Your task to perform on an android device: Clear the shopping cart on walmart.com. Image 0: 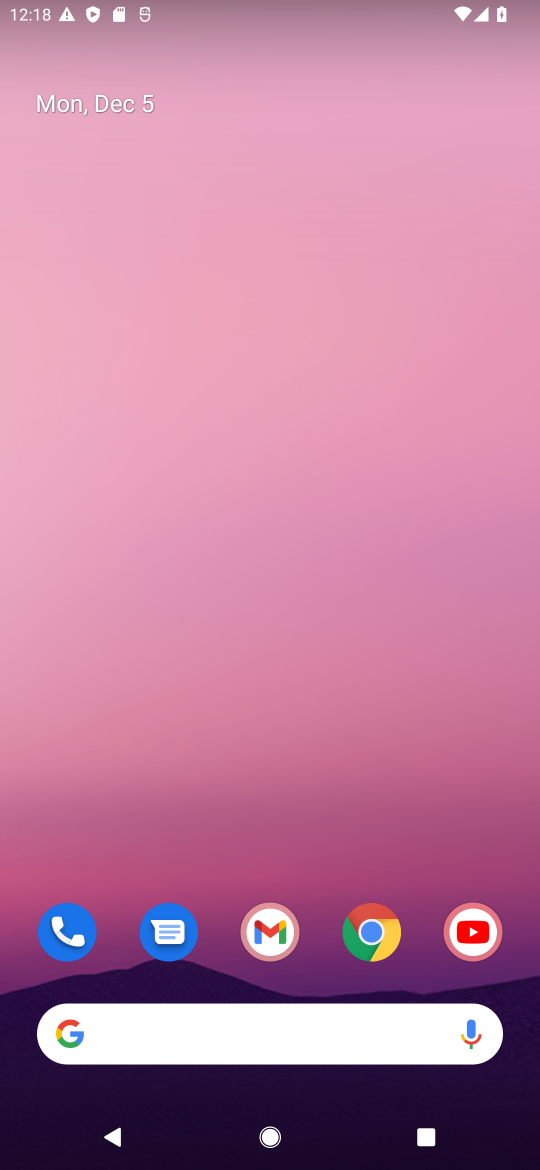
Step 0: click (360, 929)
Your task to perform on an android device: Clear the shopping cart on walmart.com. Image 1: 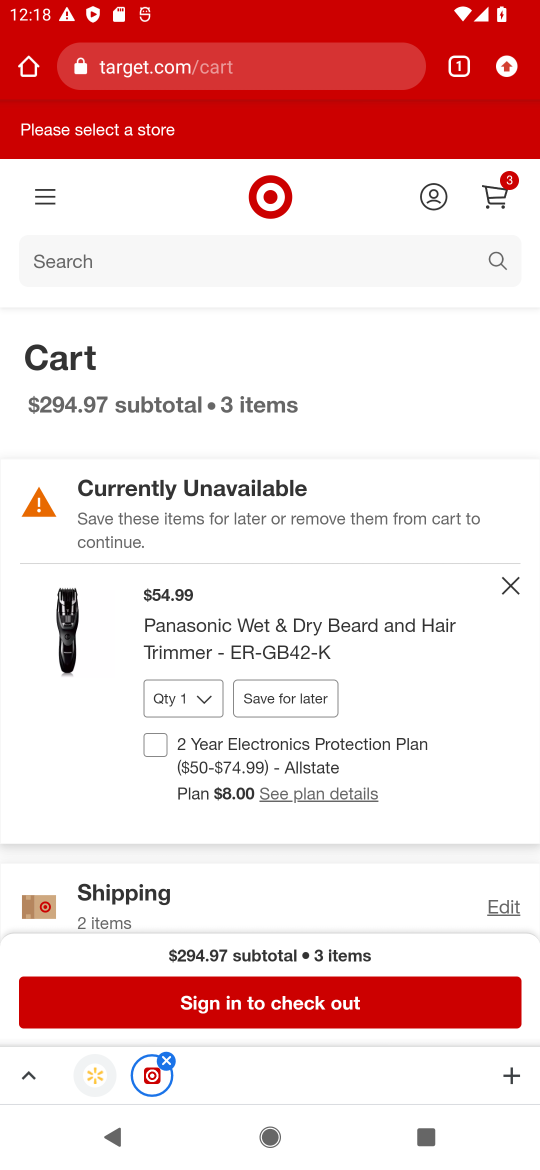
Step 1: click (216, 61)
Your task to perform on an android device: Clear the shopping cart on walmart.com. Image 2: 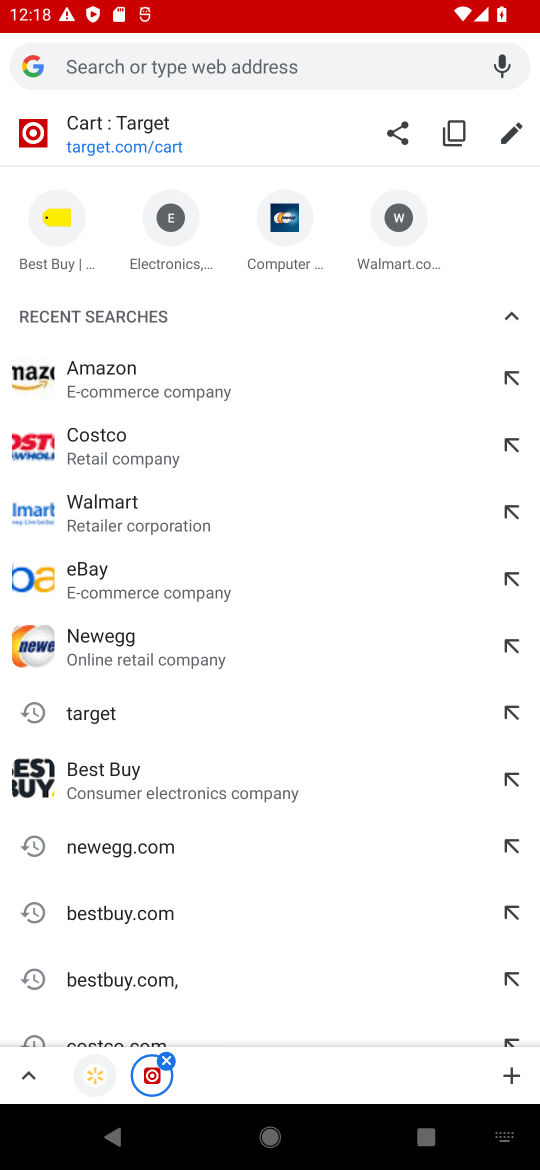
Step 2: click (130, 520)
Your task to perform on an android device: Clear the shopping cart on walmart.com. Image 3: 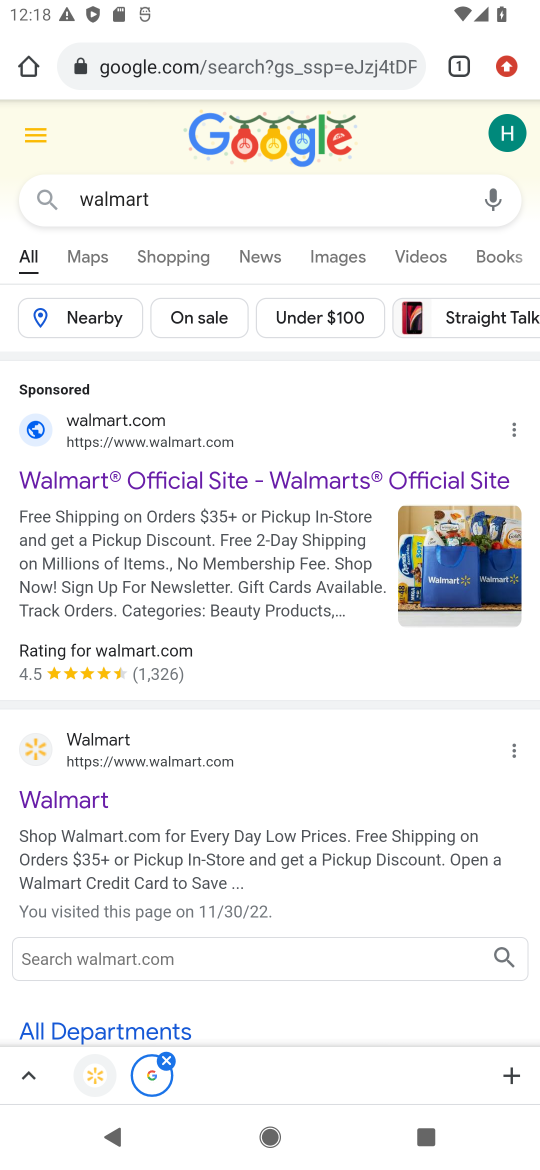
Step 3: click (213, 476)
Your task to perform on an android device: Clear the shopping cart on walmart.com. Image 4: 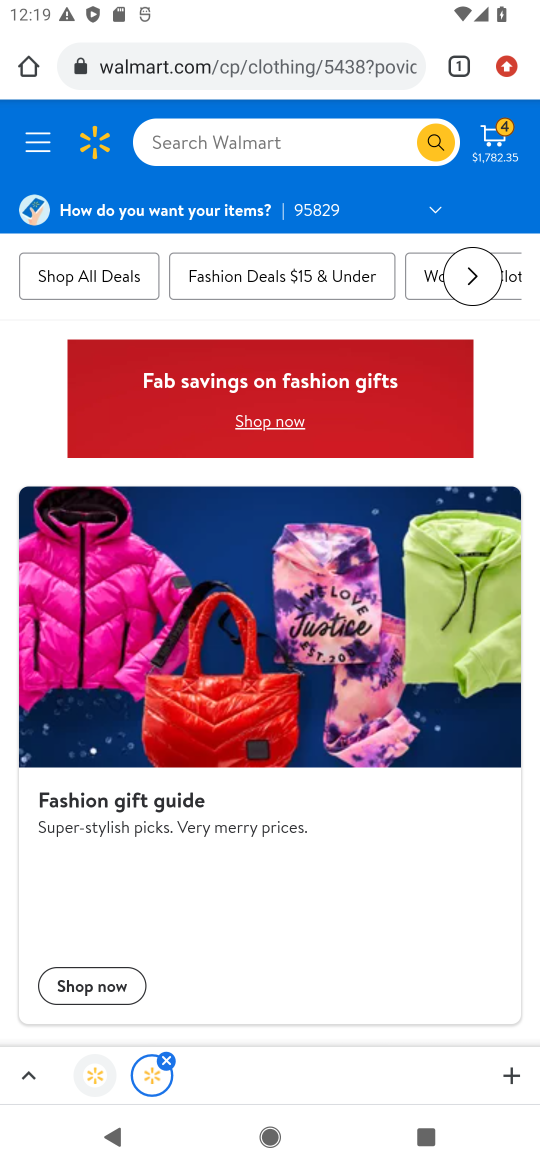
Step 4: click (501, 134)
Your task to perform on an android device: Clear the shopping cart on walmart.com. Image 5: 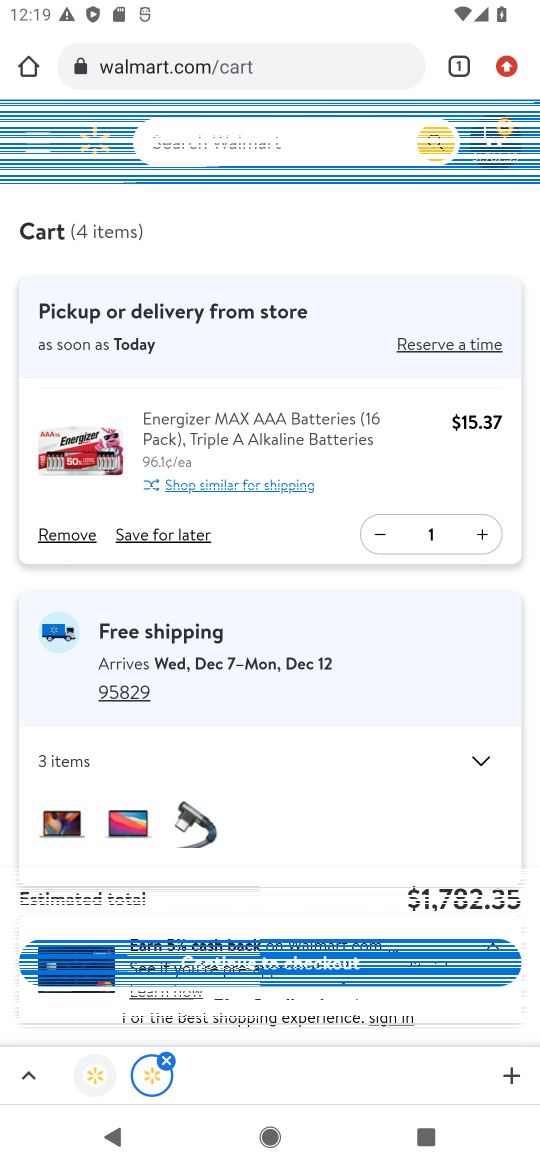
Step 5: click (65, 539)
Your task to perform on an android device: Clear the shopping cart on walmart.com. Image 6: 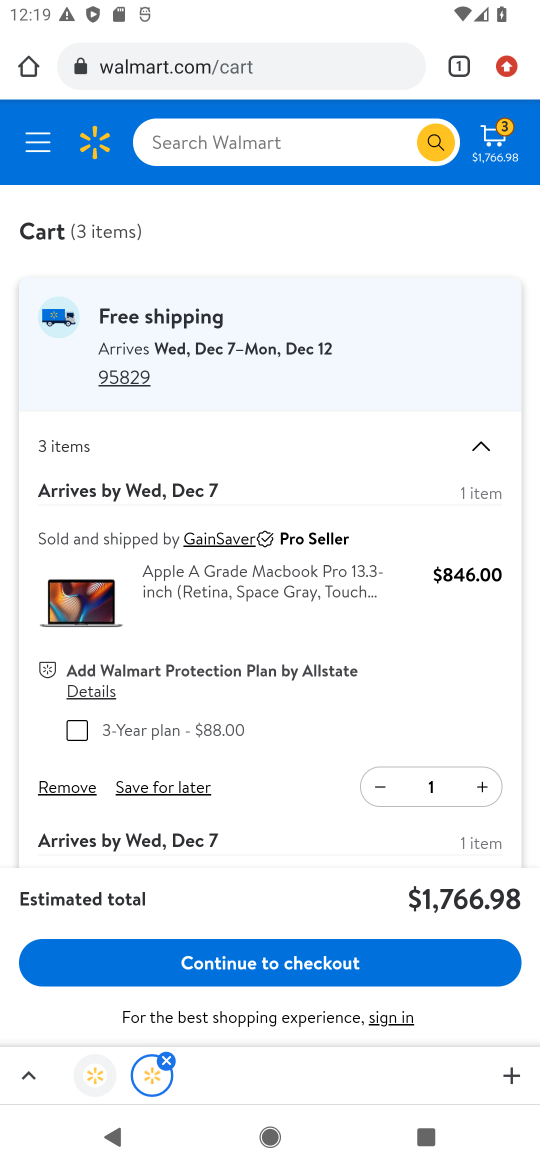
Step 6: click (58, 788)
Your task to perform on an android device: Clear the shopping cart on walmart.com. Image 7: 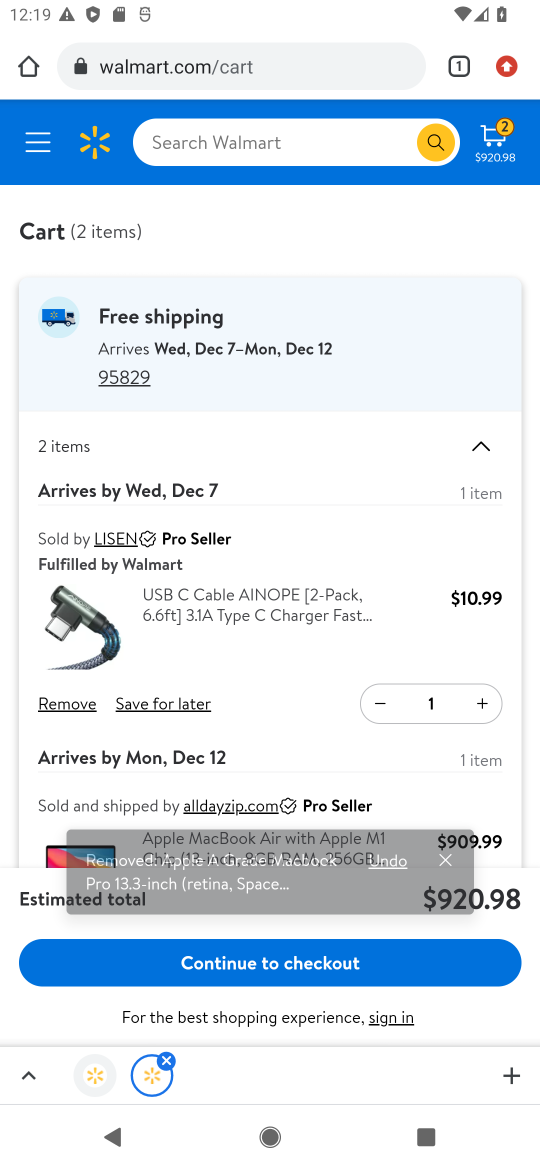
Step 7: click (65, 705)
Your task to perform on an android device: Clear the shopping cart on walmart.com. Image 8: 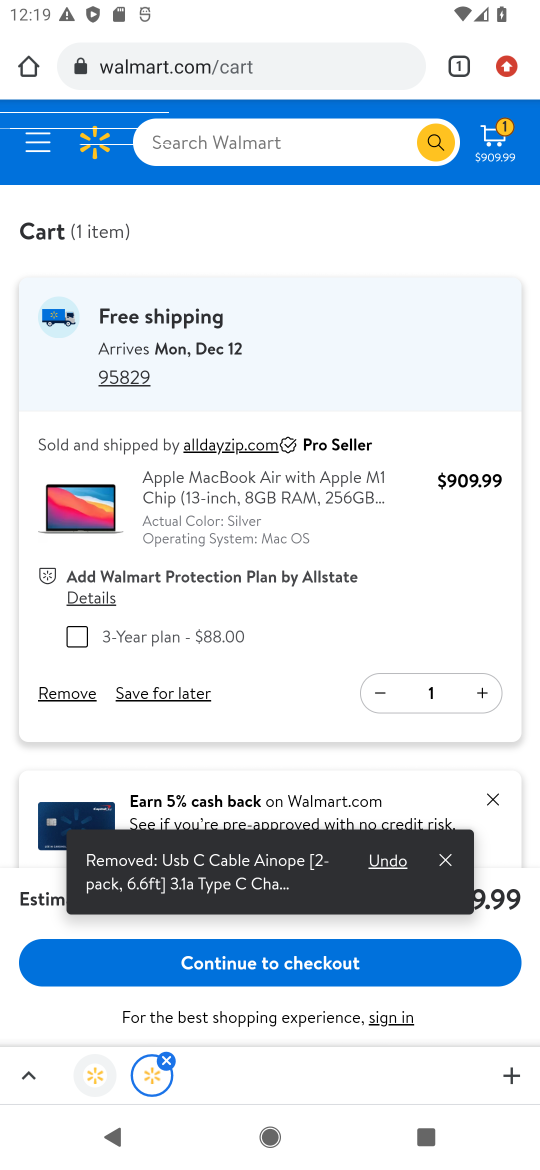
Step 8: click (58, 683)
Your task to perform on an android device: Clear the shopping cart on walmart.com. Image 9: 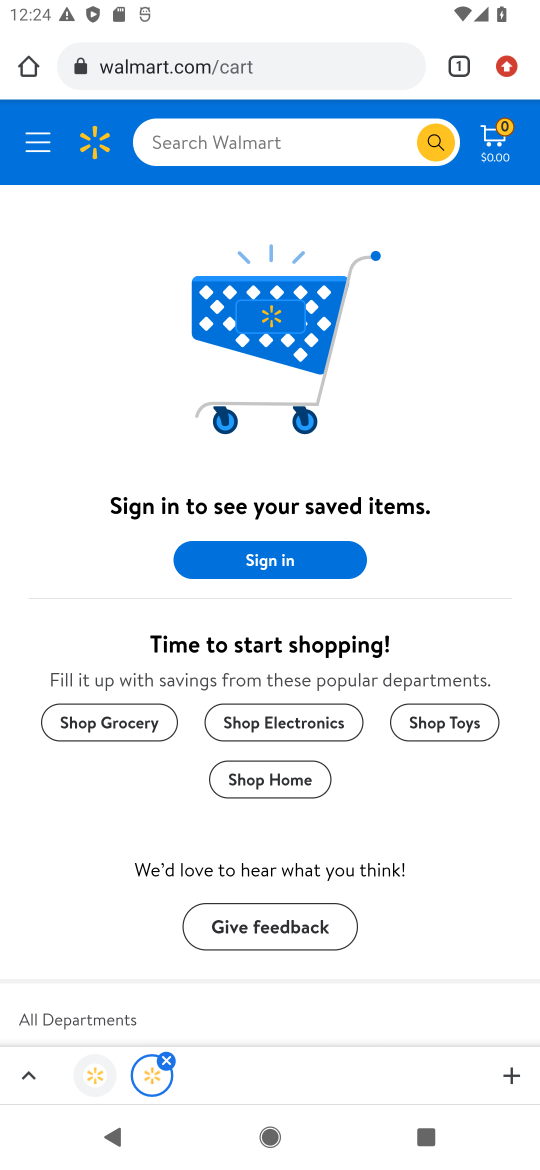
Step 9: task complete